Your task to perform on an android device: turn on location history Image 0: 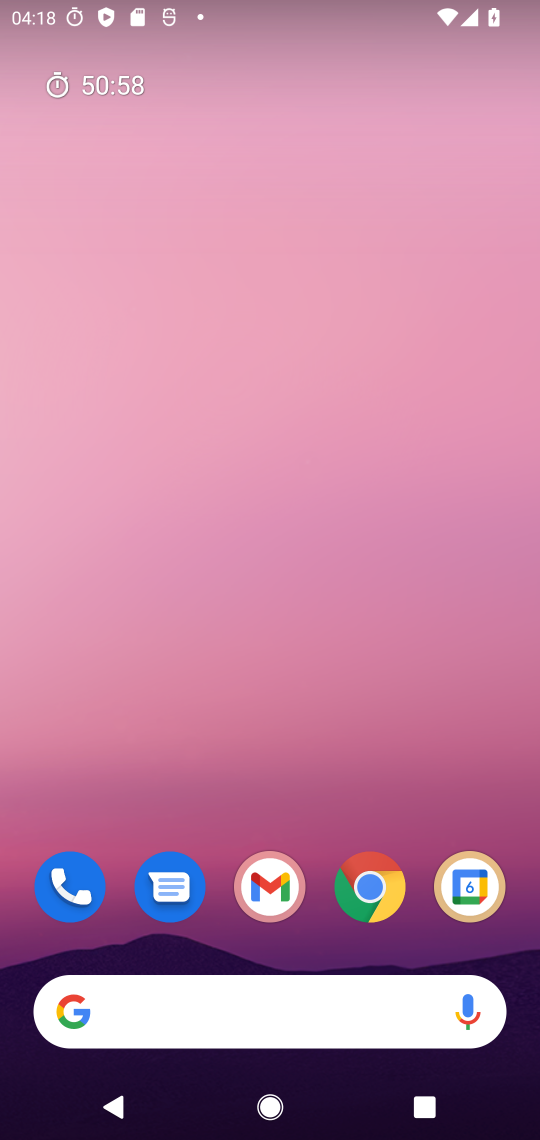
Step 0: press home button
Your task to perform on an android device: turn on location history Image 1: 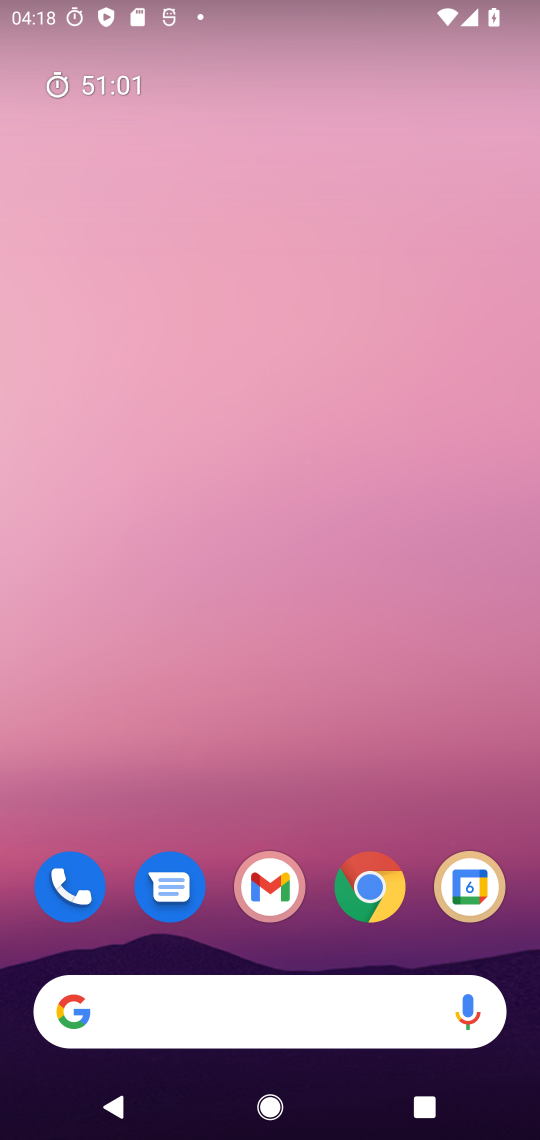
Step 1: drag from (322, 707) to (381, 313)
Your task to perform on an android device: turn on location history Image 2: 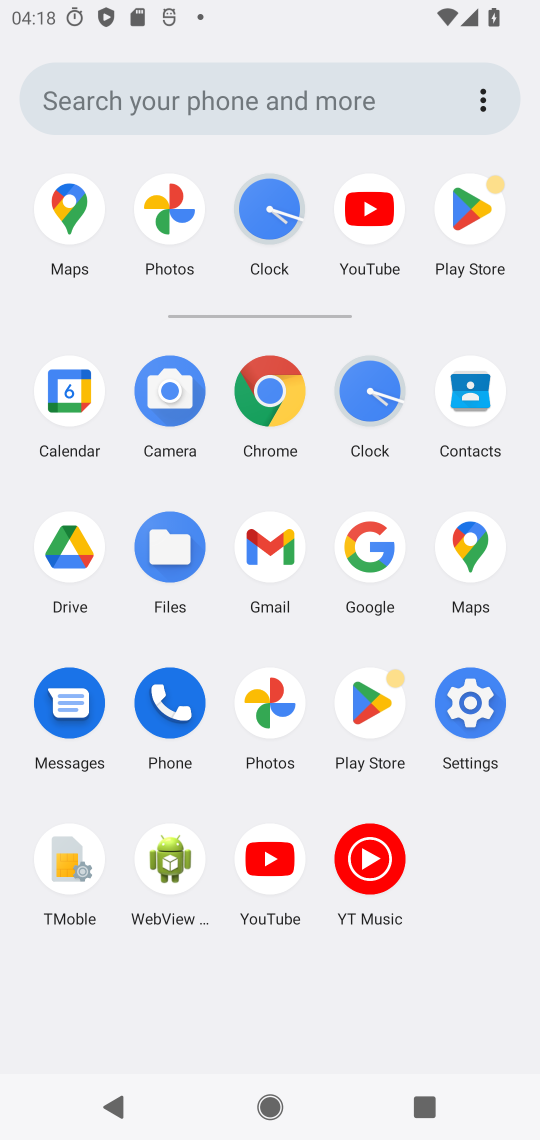
Step 2: click (465, 702)
Your task to perform on an android device: turn on location history Image 3: 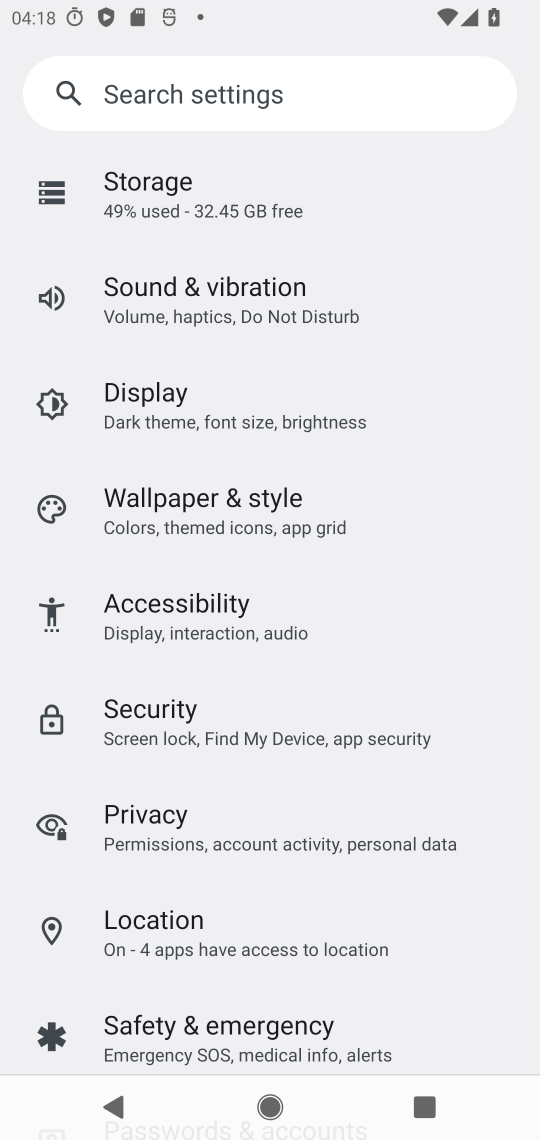
Step 3: drag from (413, 459) to (415, 548)
Your task to perform on an android device: turn on location history Image 4: 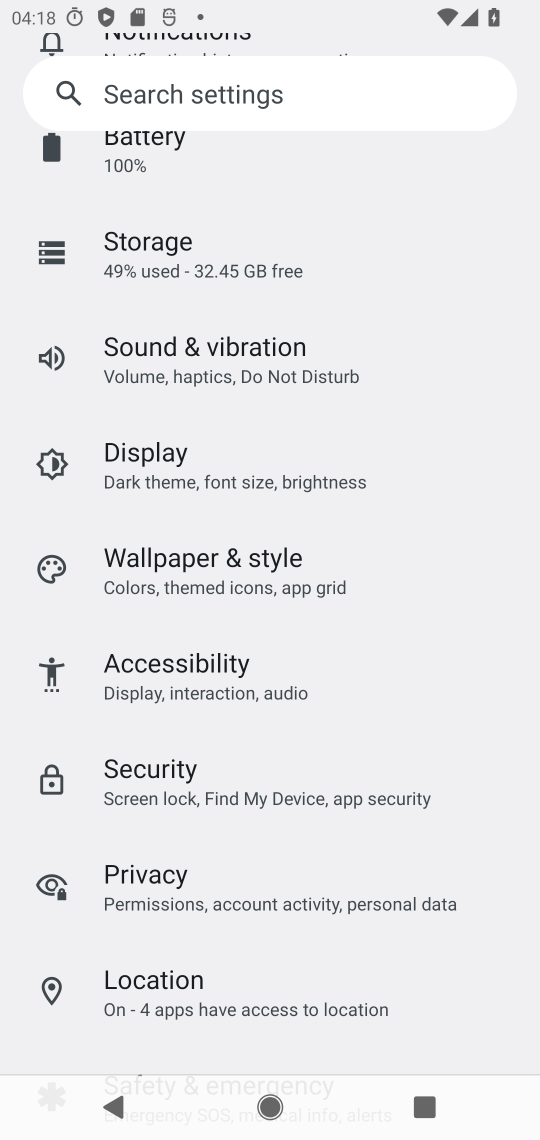
Step 4: drag from (420, 364) to (439, 515)
Your task to perform on an android device: turn on location history Image 5: 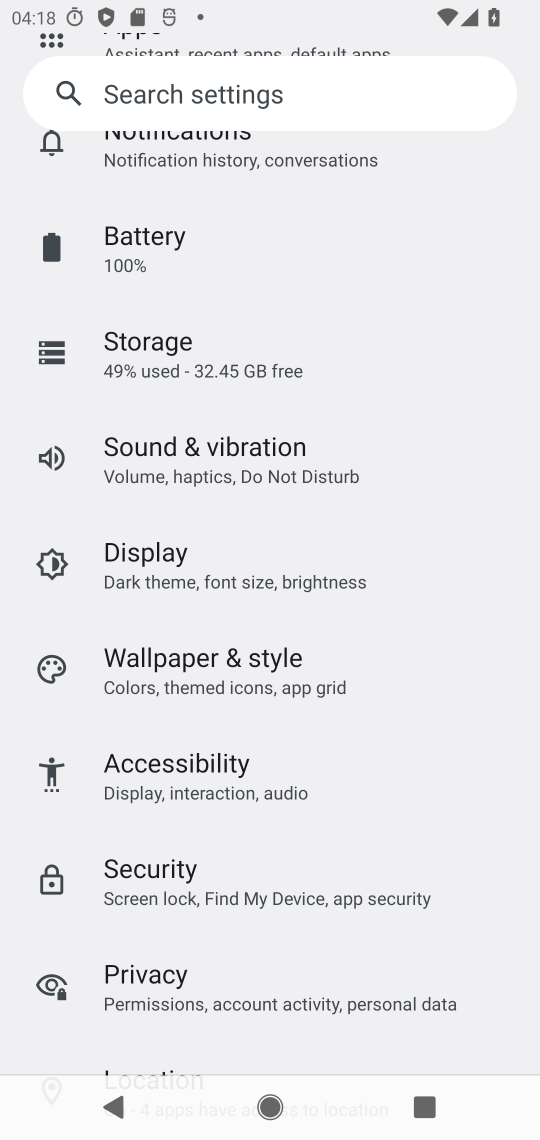
Step 5: drag from (458, 320) to (446, 510)
Your task to perform on an android device: turn on location history Image 6: 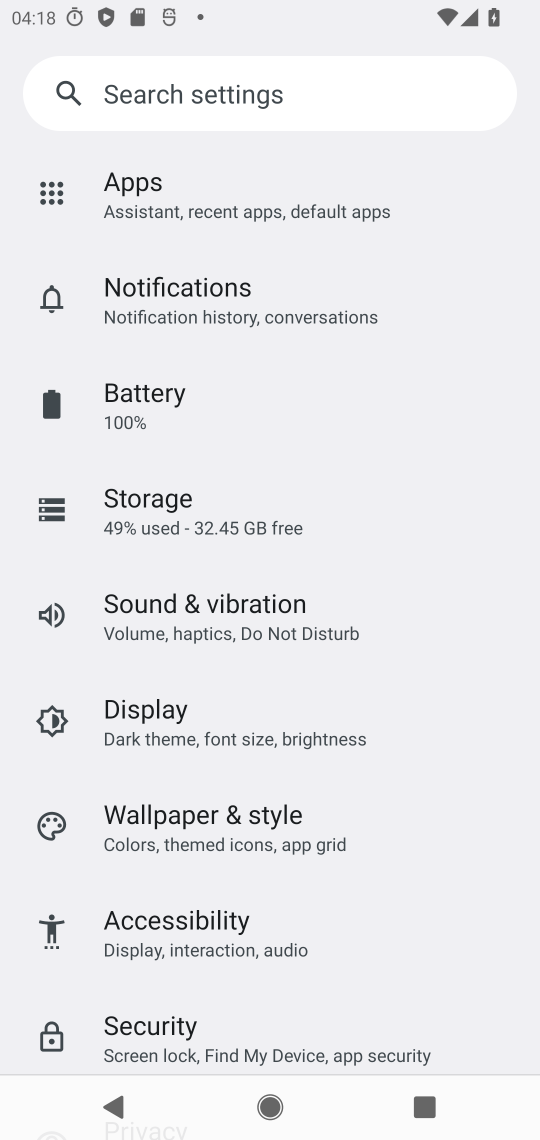
Step 6: drag from (461, 320) to (444, 498)
Your task to perform on an android device: turn on location history Image 7: 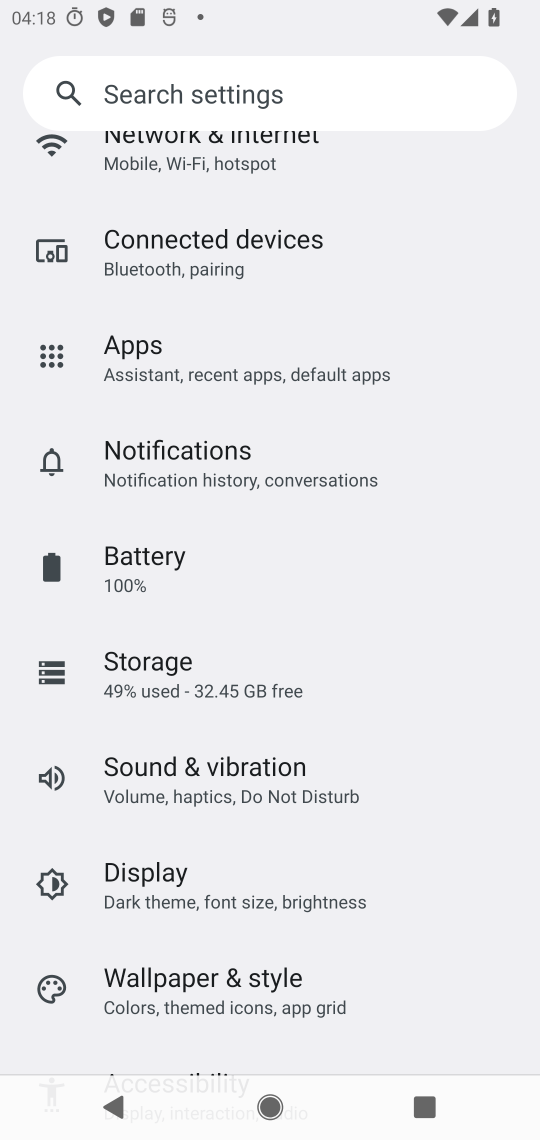
Step 7: drag from (460, 282) to (459, 491)
Your task to perform on an android device: turn on location history Image 8: 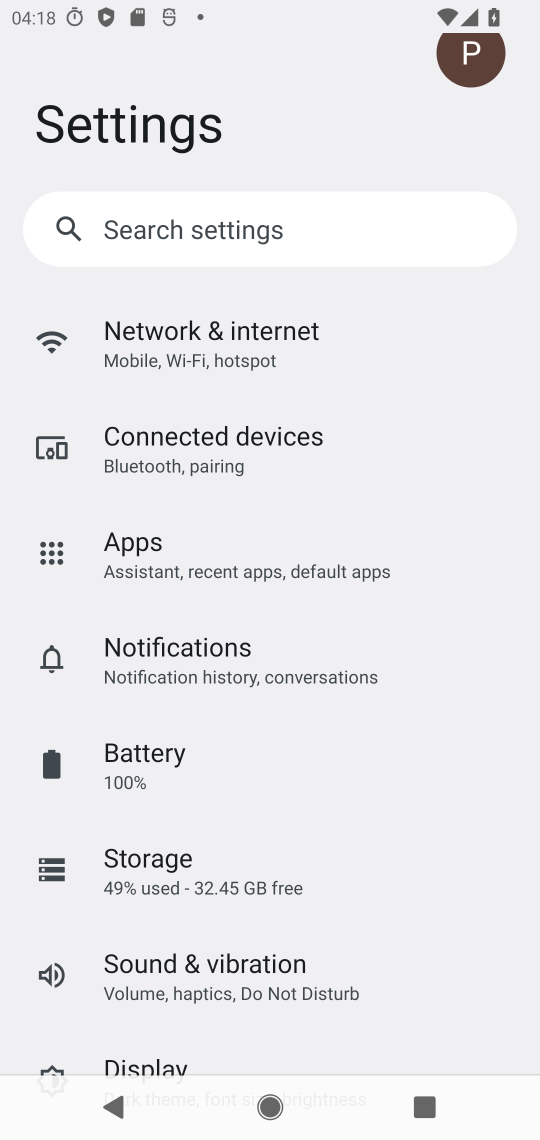
Step 8: drag from (458, 313) to (442, 595)
Your task to perform on an android device: turn on location history Image 9: 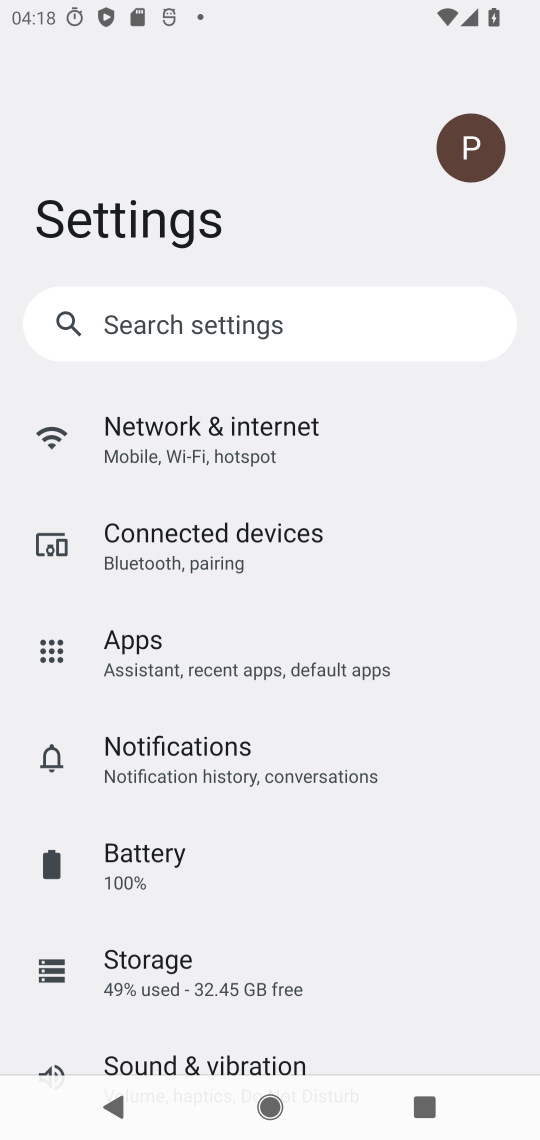
Step 9: drag from (441, 544) to (445, 422)
Your task to perform on an android device: turn on location history Image 10: 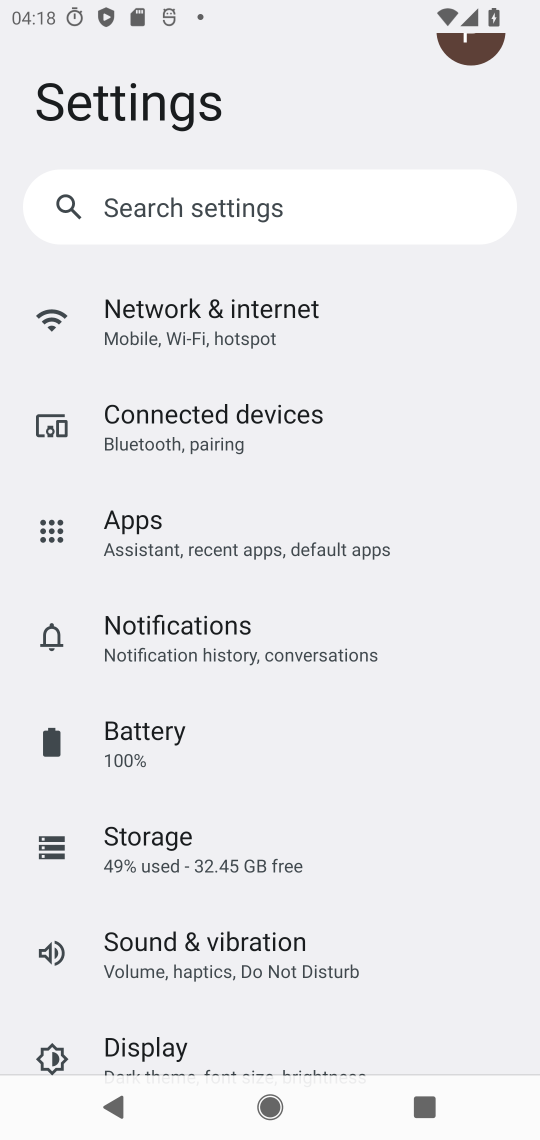
Step 10: drag from (449, 624) to (459, 469)
Your task to perform on an android device: turn on location history Image 11: 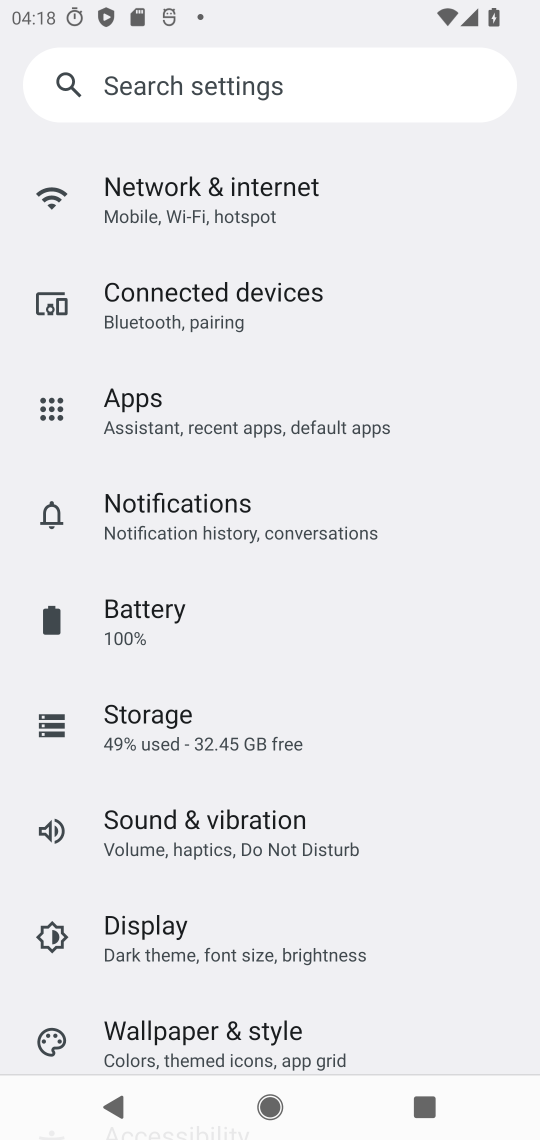
Step 11: drag from (468, 662) to (475, 476)
Your task to perform on an android device: turn on location history Image 12: 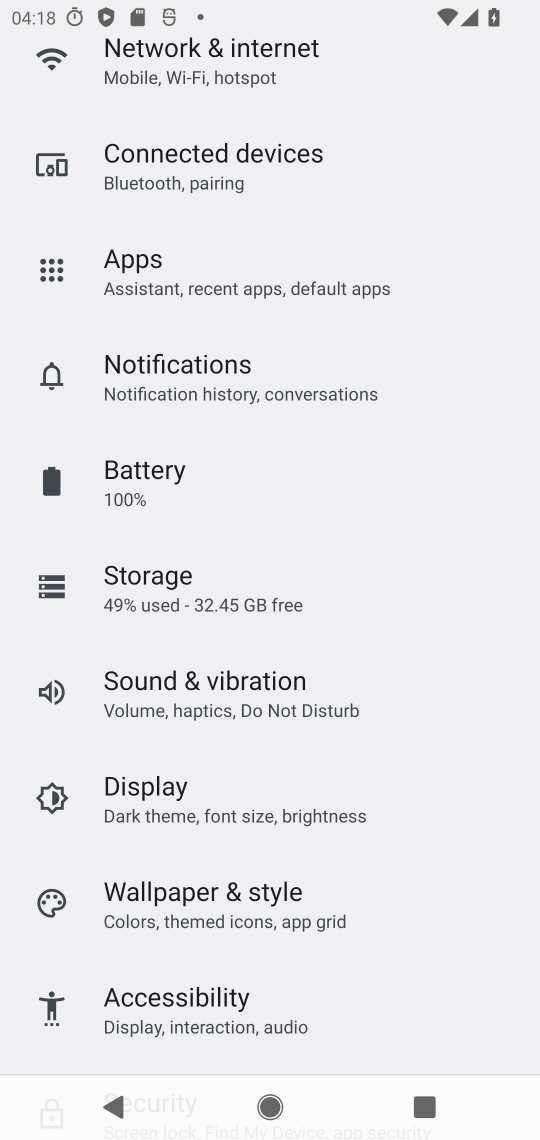
Step 12: drag from (450, 655) to (471, 560)
Your task to perform on an android device: turn on location history Image 13: 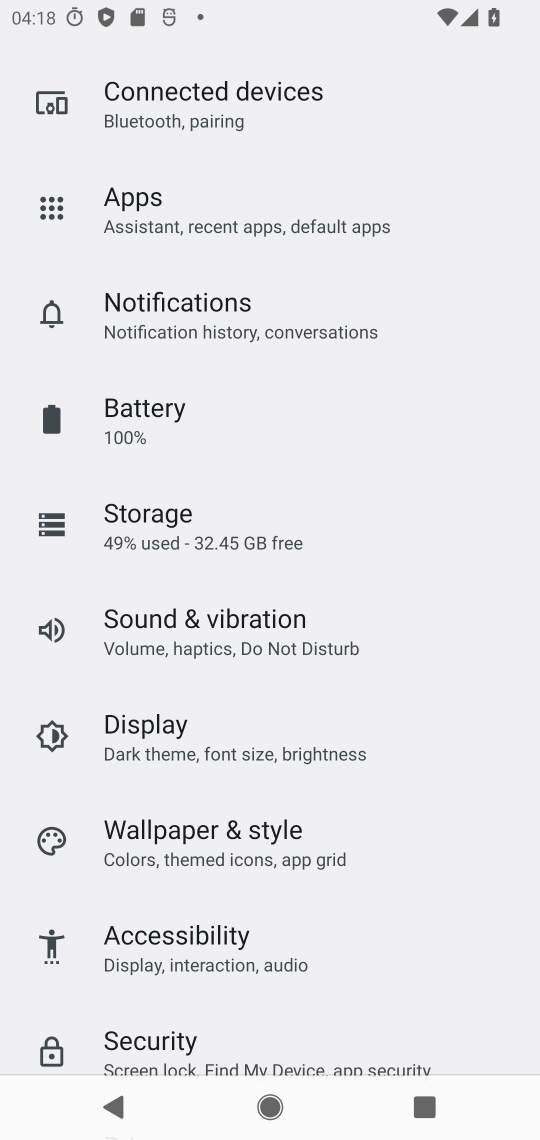
Step 13: drag from (466, 721) to (448, 487)
Your task to perform on an android device: turn on location history Image 14: 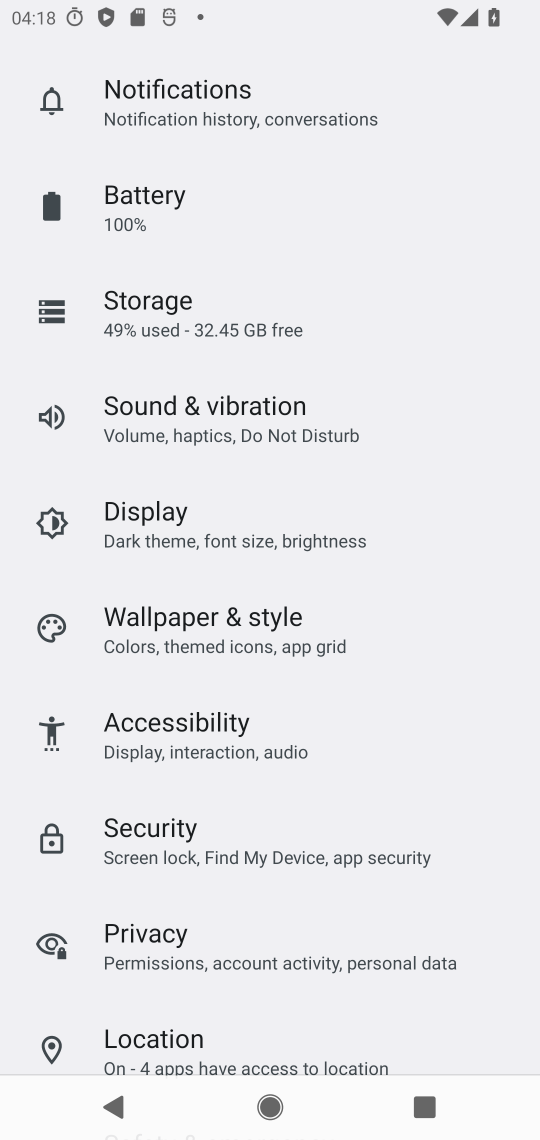
Step 14: drag from (403, 731) to (418, 554)
Your task to perform on an android device: turn on location history Image 15: 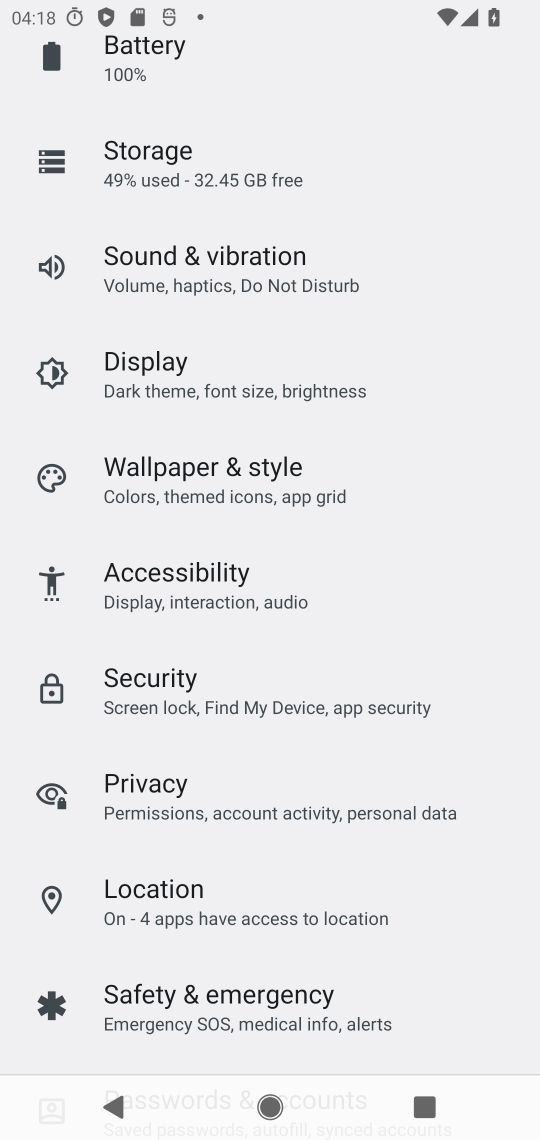
Step 15: drag from (458, 756) to (473, 558)
Your task to perform on an android device: turn on location history Image 16: 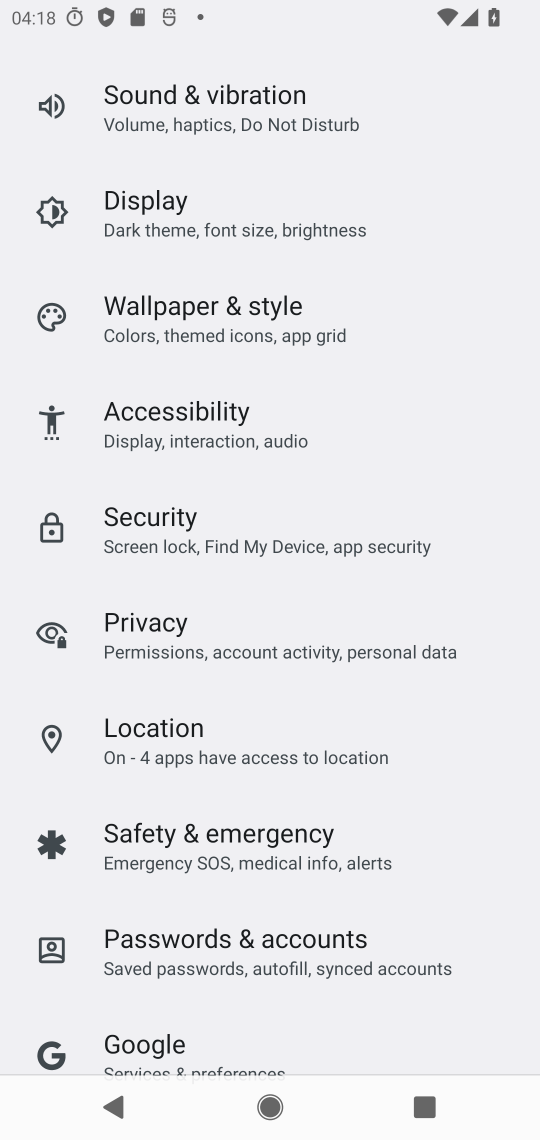
Step 16: drag from (451, 770) to (453, 585)
Your task to perform on an android device: turn on location history Image 17: 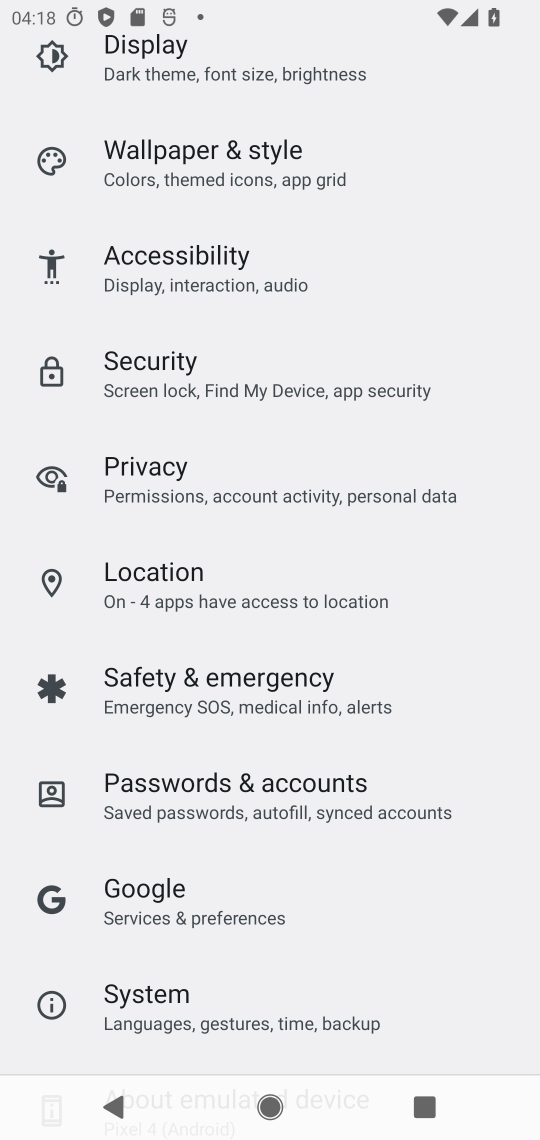
Step 17: click (421, 587)
Your task to perform on an android device: turn on location history Image 18: 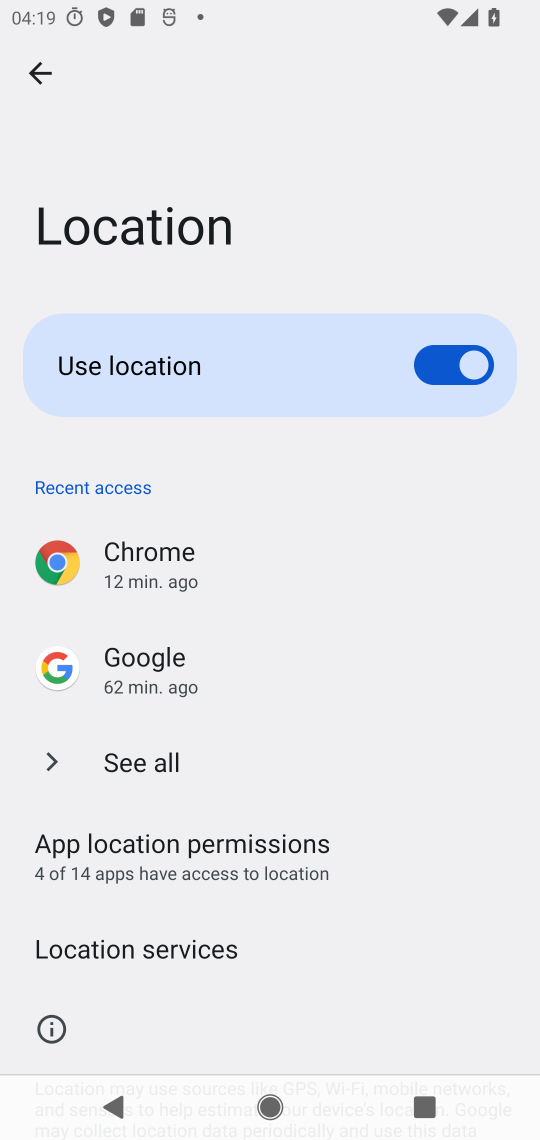
Step 18: click (273, 956)
Your task to perform on an android device: turn on location history Image 19: 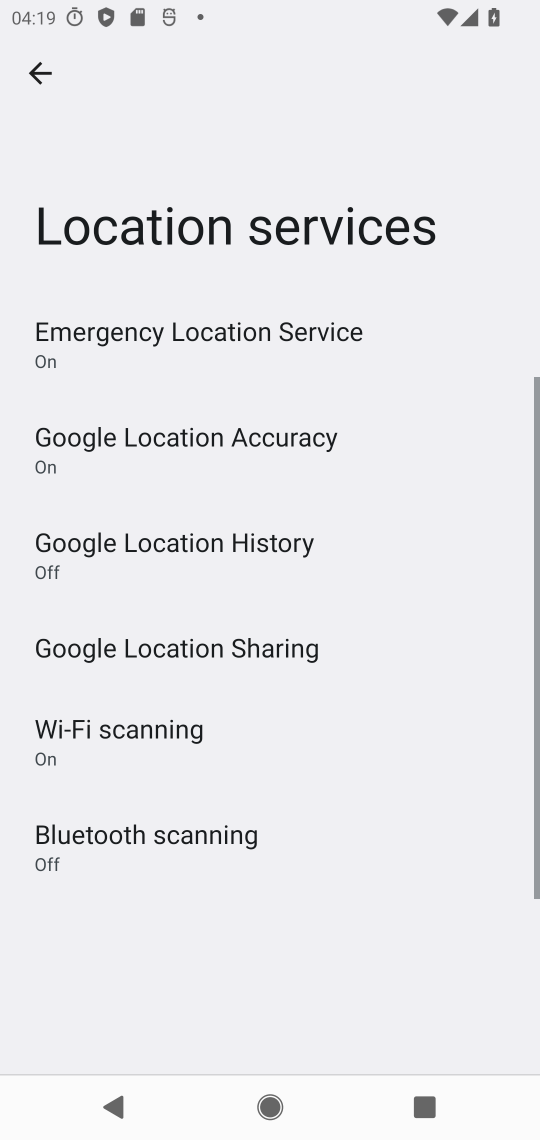
Step 19: drag from (402, 873) to (413, 587)
Your task to perform on an android device: turn on location history Image 20: 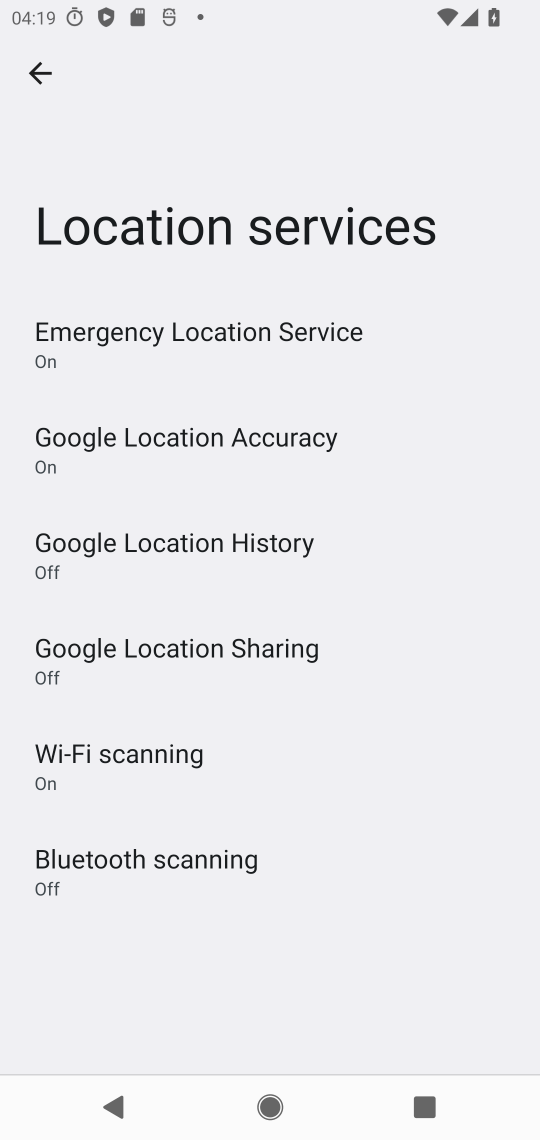
Step 20: click (329, 535)
Your task to perform on an android device: turn on location history Image 21: 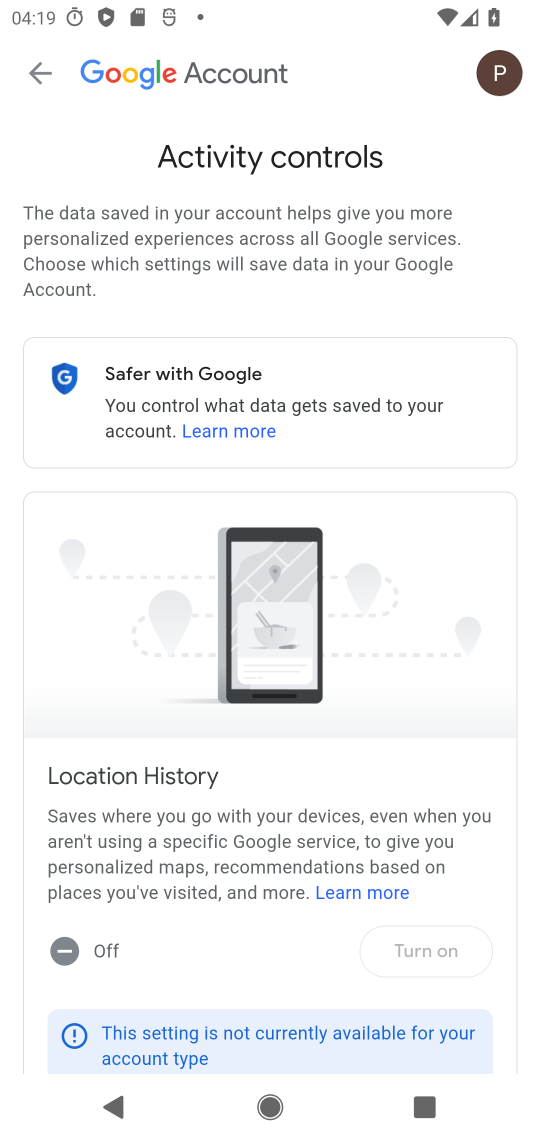
Step 21: task complete